Your task to perform on an android device: Search for Mexican restaurants on Maps Image 0: 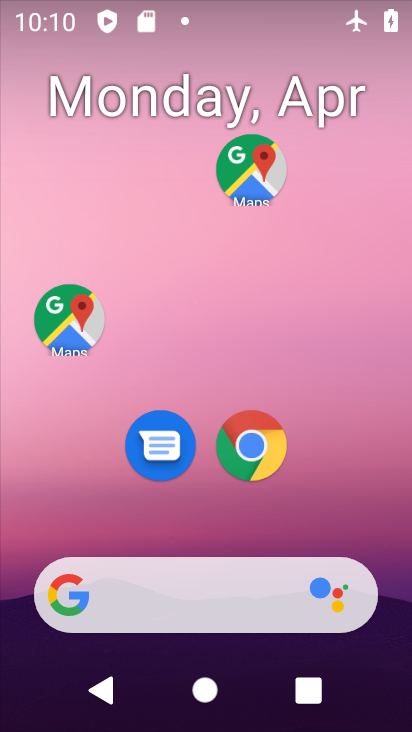
Step 0: click (251, 183)
Your task to perform on an android device: Search for Mexican restaurants on Maps Image 1: 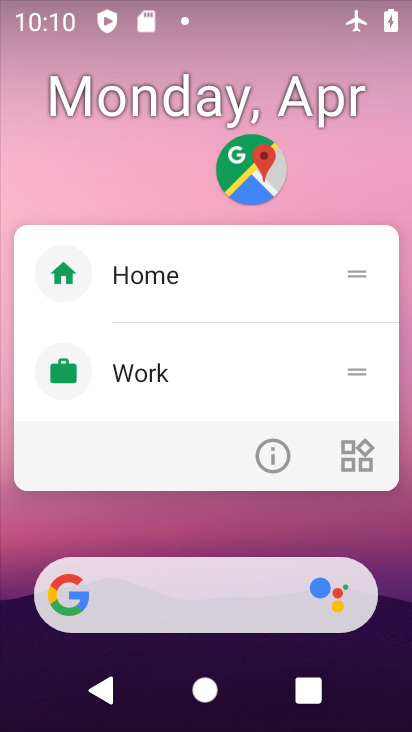
Step 1: click (251, 184)
Your task to perform on an android device: Search for Mexican restaurants on Maps Image 2: 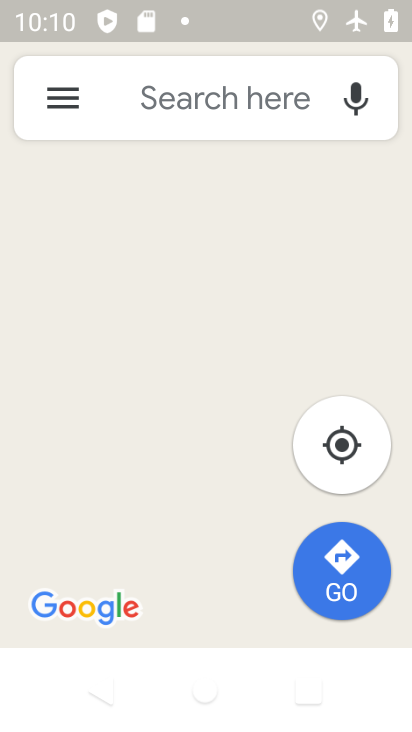
Step 2: click (244, 121)
Your task to perform on an android device: Search for Mexican restaurants on Maps Image 3: 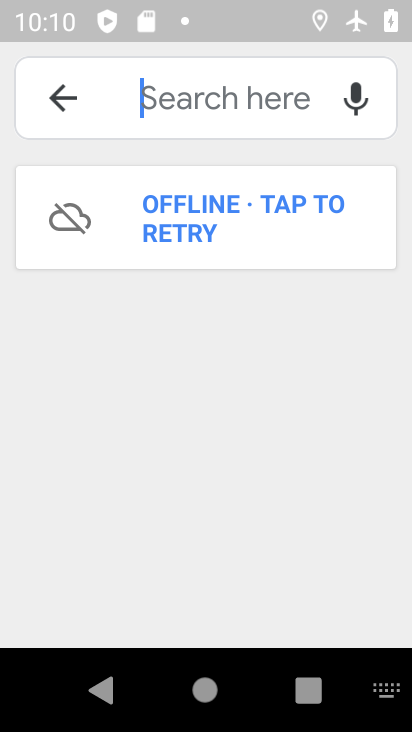
Step 3: click (260, 218)
Your task to perform on an android device: Search for Mexican restaurants on Maps Image 4: 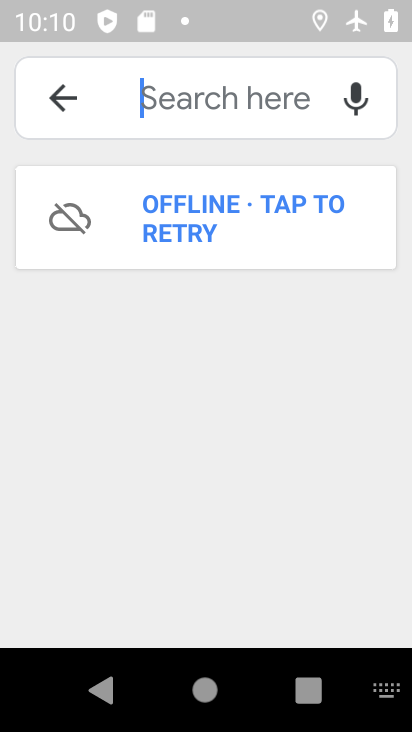
Step 4: task complete